Your task to perform on an android device: add a label to a message in the gmail app Image 0: 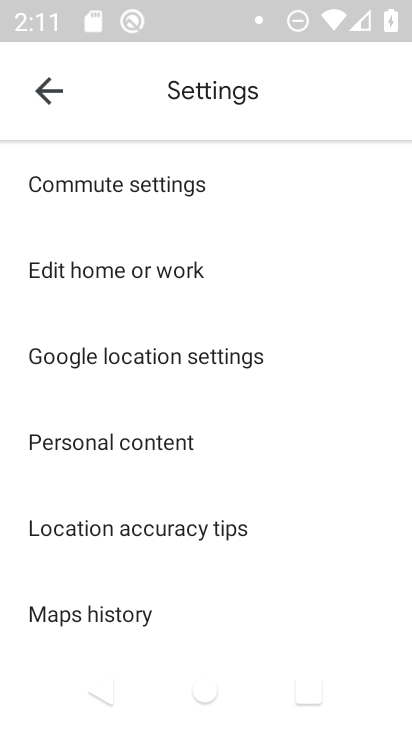
Step 0: press home button
Your task to perform on an android device: add a label to a message in the gmail app Image 1: 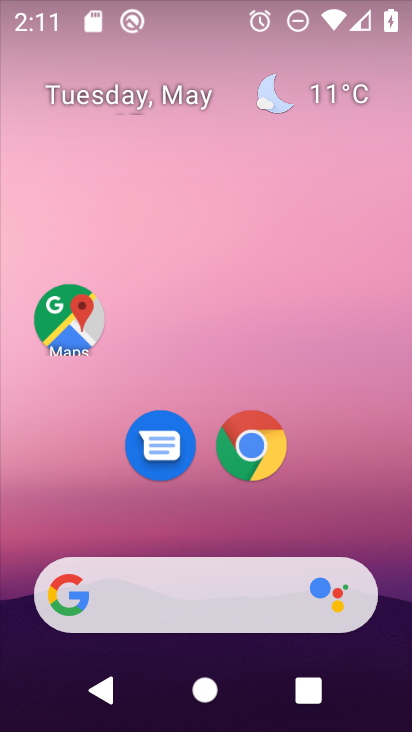
Step 1: drag from (390, 492) to (272, 110)
Your task to perform on an android device: add a label to a message in the gmail app Image 2: 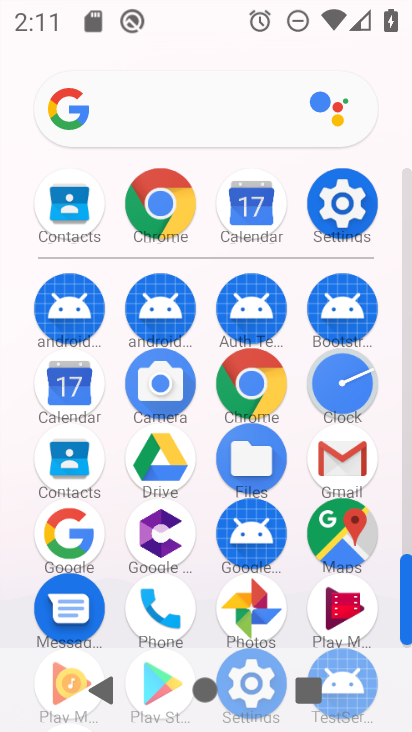
Step 2: click (352, 465)
Your task to perform on an android device: add a label to a message in the gmail app Image 3: 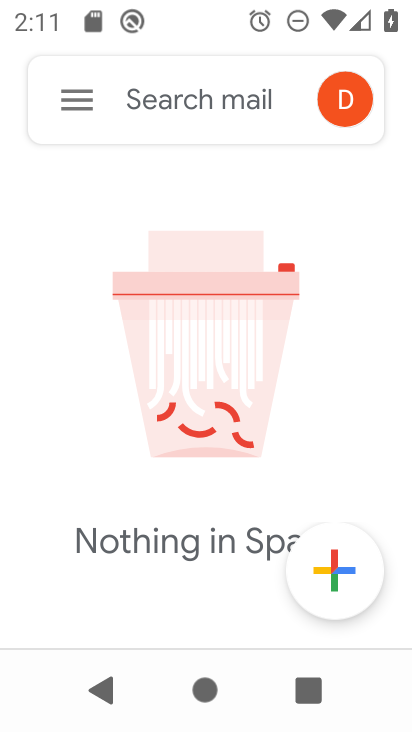
Step 3: click (86, 112)
Your task to perform on an android device: add a label to a message in the gmail app Image 4: 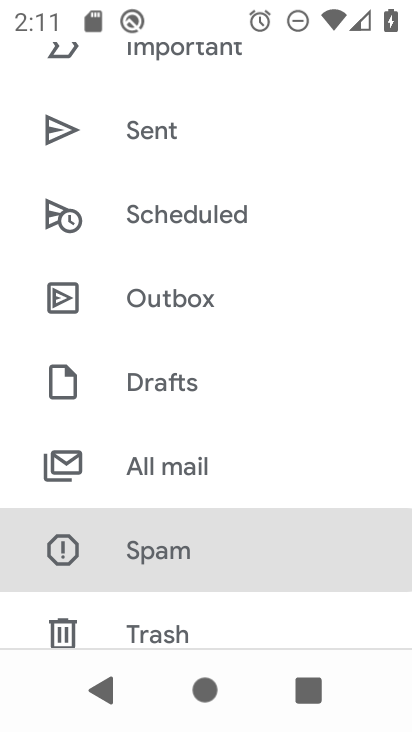
Step 4: click (194, 466)
Your task to perform on an android device: add a label to a message in the gmail app Image 5: 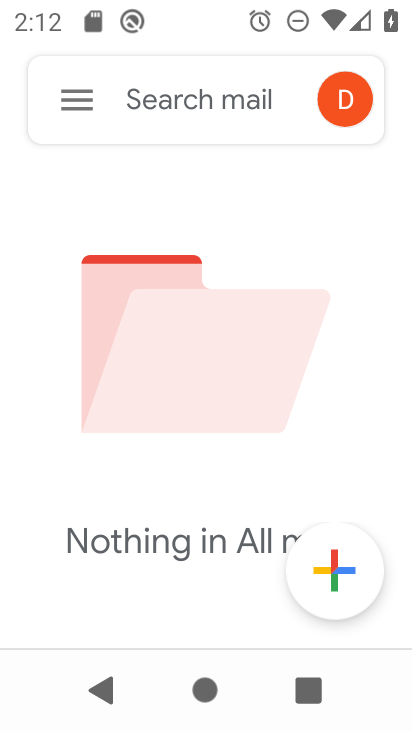
Step 5: task complete